Your task to perform on an android device: check battery use Image 0: 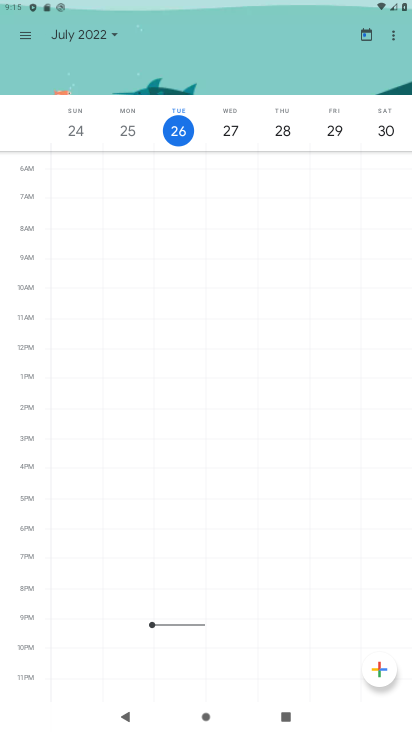
Step 0: press home button
Your task to perform on an android device: check battery use Image 1: 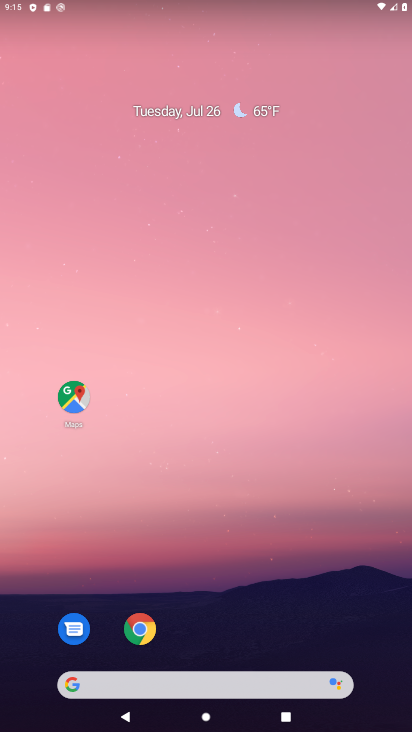
Step 1: drag from (290, 588) to (224, 47)
Your task to perform on an android device: check battery use Image 2: 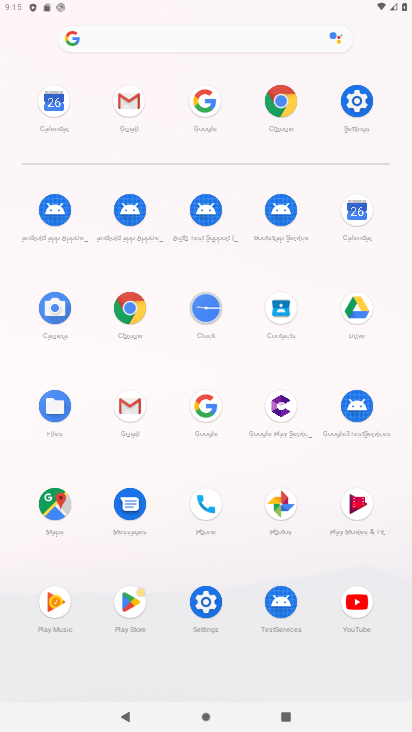
Step 2: click (336, 104)
Your task to perform on an android device: check battery use Image 3: 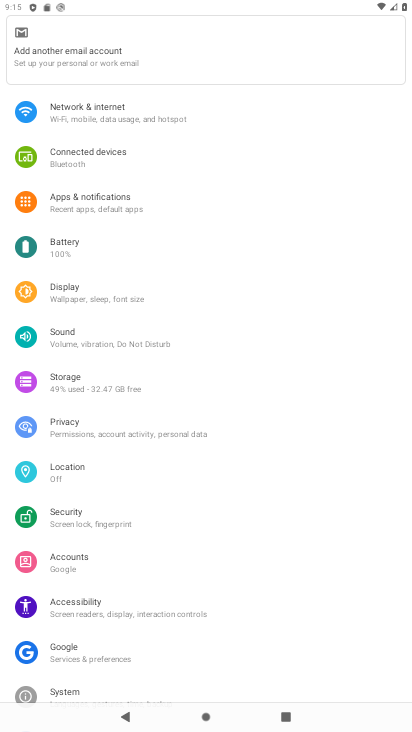
Step 3: click (61, 239)
Your task to perform on an android device: check battery use Image 4: 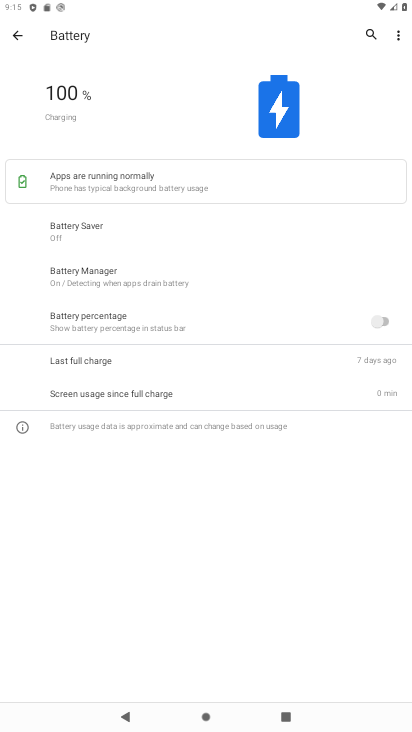
Step 4: click (401, 33)
Your task to perform on an android device: check battery use Image 5: 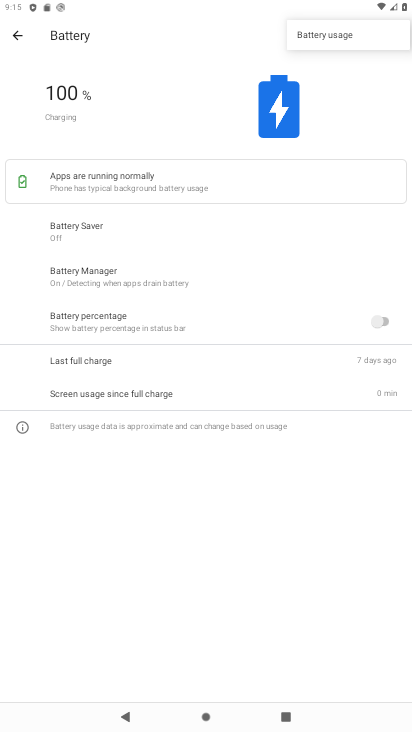
Step 5: click (359, 39)
Your task to perform on an android device: check battery use Image 6: 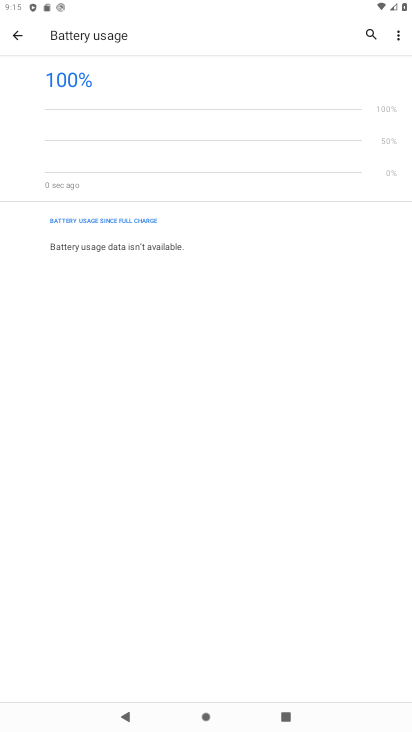
Step 6: task complete